Your task to perform on an android device: turn notification dots off Image 0: 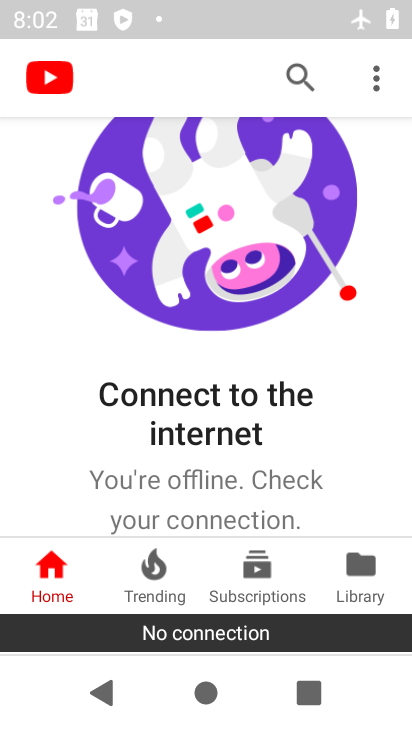
Step 0: press home button
Your task to perform on an android device: turn notification dots off Image 1: 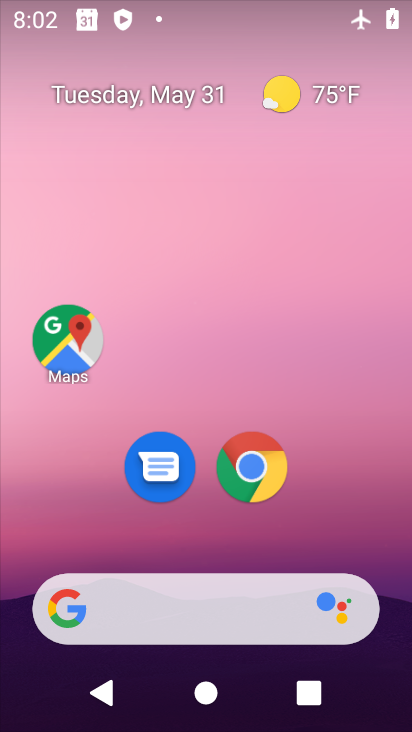
Step 1: drag from (237, 583) to (267, 174)
Your task to perform on an android device: turn notification dots off Image 2: 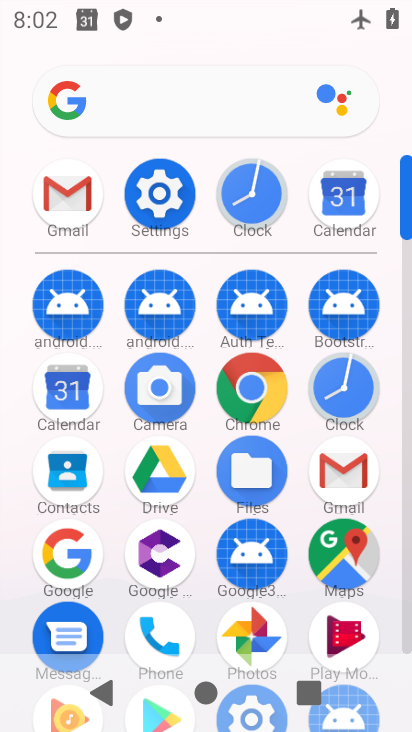
Step 2: click (137, 186)
Your task to perform on an android device: turn notification dots off Image 3: 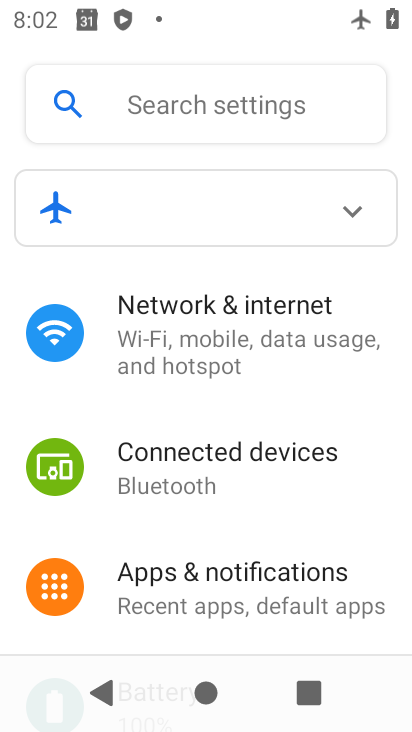
Step 3: click (208, 575)
Your task to perform on an android device: turn notification dots off Image 4: 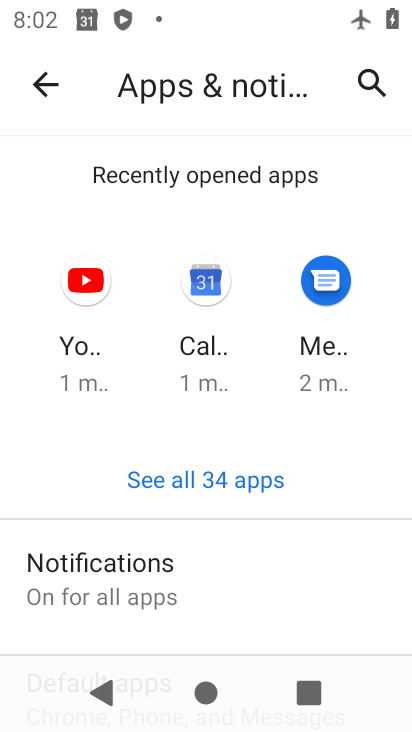
Step 4: click (166, 584)
Your task to perform on an android device: turn notification dots off Image 5: 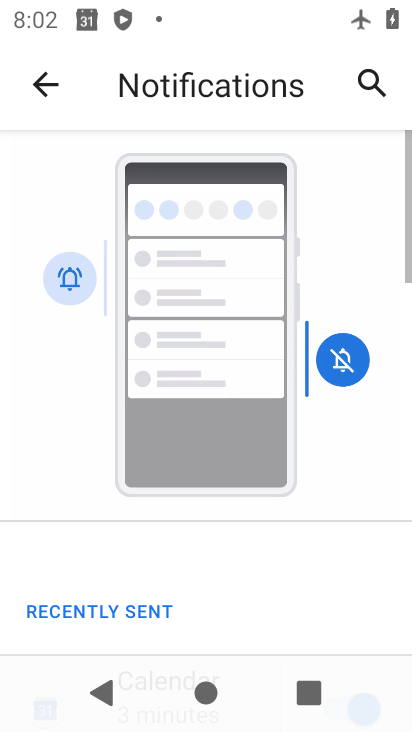
Step 5: drag from (164, 579) to (288, 103)
Your task to perform on an android device: turn notification dots off Image 6: 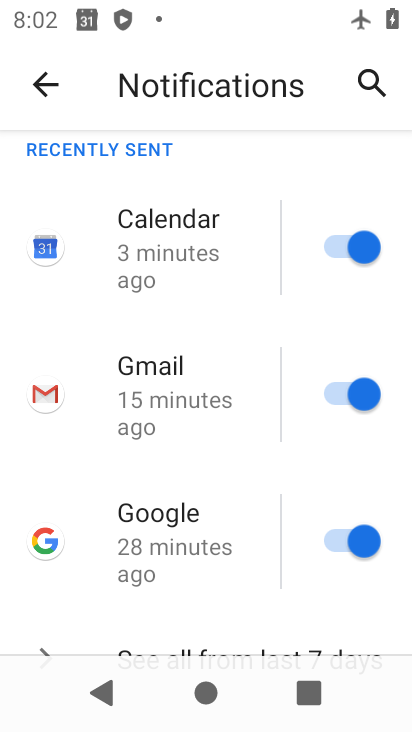
Step 6: drag from (175, 485) to (227, 175)
Your task to perform on an android device: turn notification dots off Image 7: 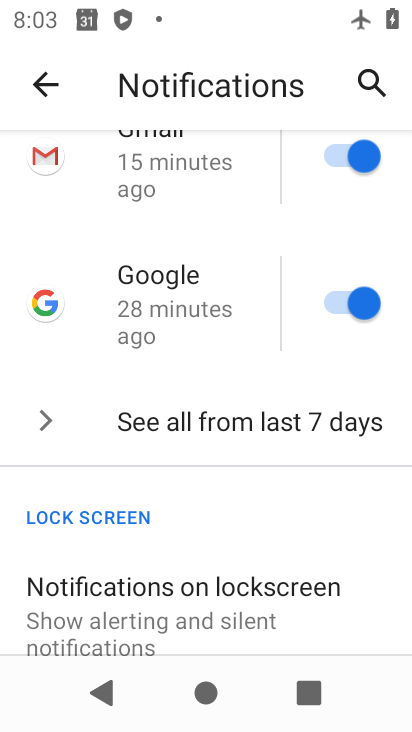
Step 7: drag from (227, 613) to (349, 292)
Your task to perform on an android device: turn notification dots off Image 8: 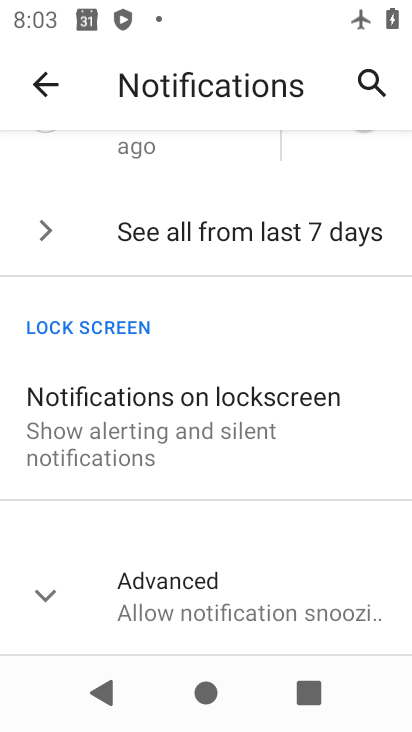
Step 8: click (211, 610)
Your task to perform on an android device: turn notification dots off Image 9: 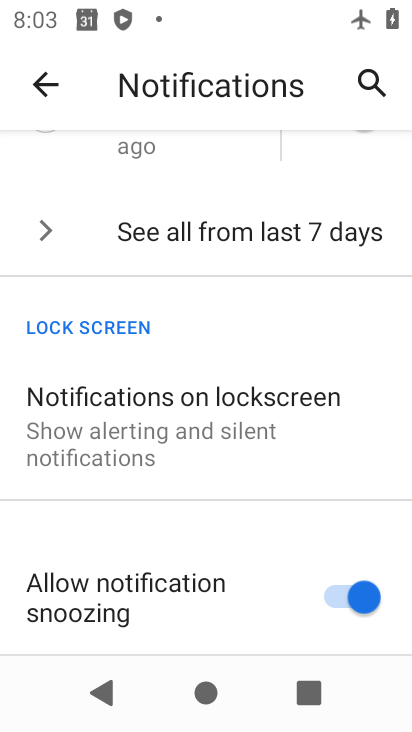
Step 9: drag from (189, 581) to (266, 144)
Your task to perform on an android device: turn notification dots off Image 10: 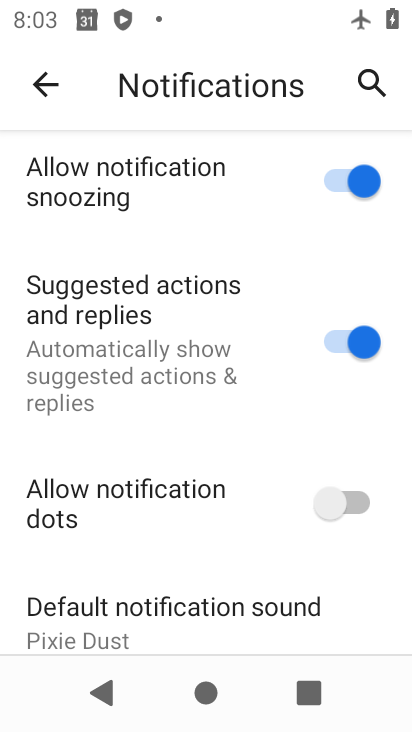
Step 10: click (274, 500)
Your task to perform on an android device: turn notification dots off Image 11: 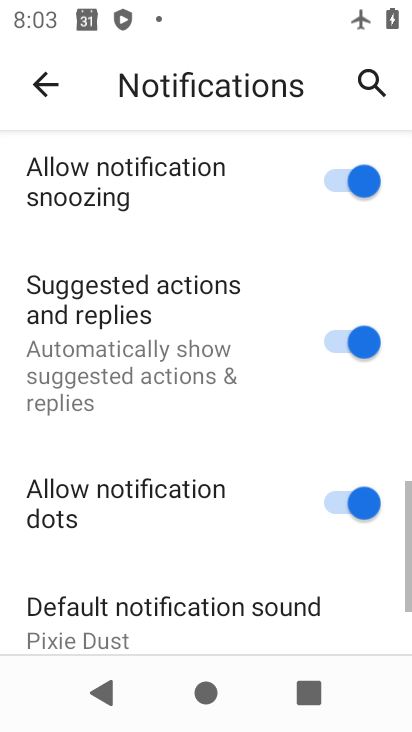
Step 11: click (274, 500)
Your task to perform on an android device: turn notification dots off Image 12: 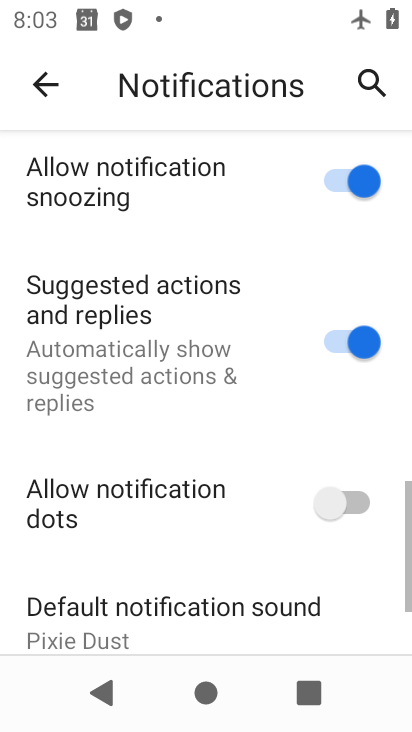
Step 12: task complete